Your task to perform on an android device: Set an alarm for 2pm Image 0: 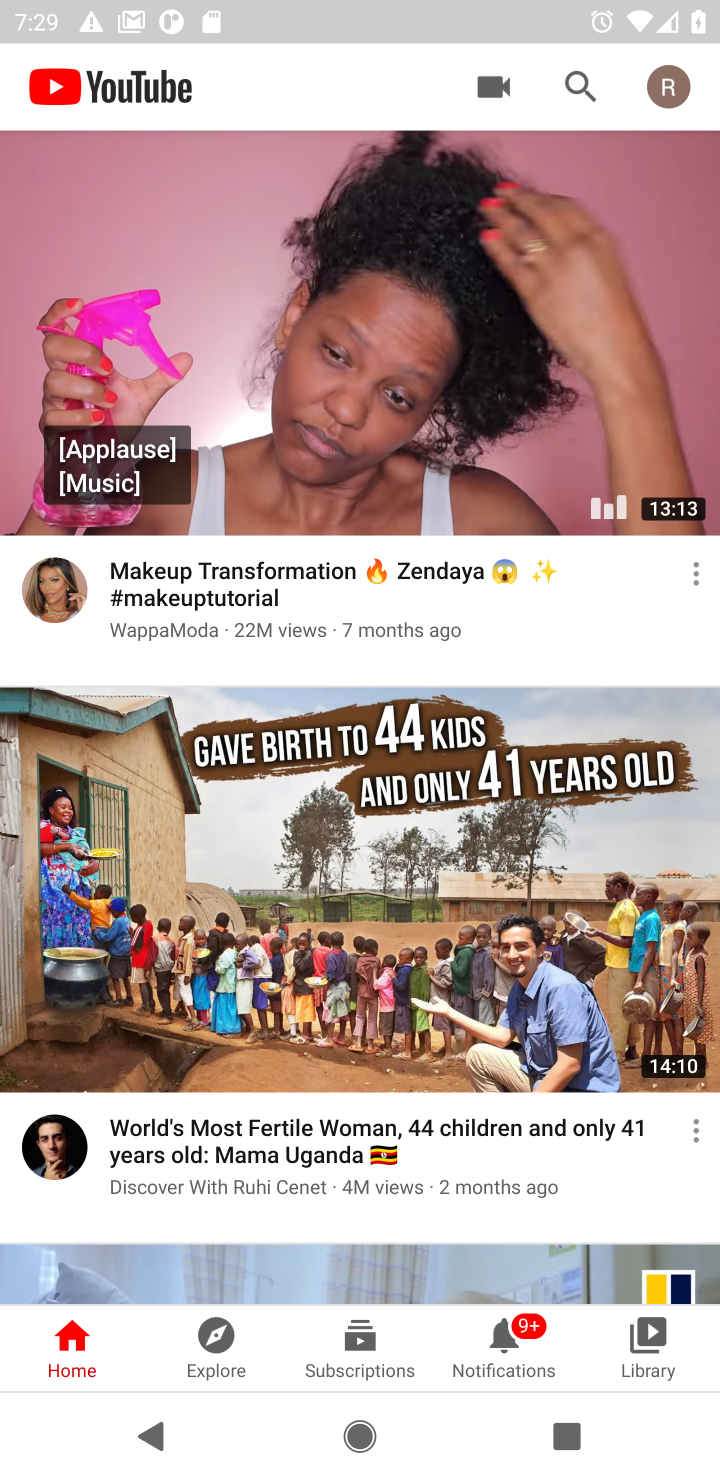
Step 0: press home button
Your task to perform on an android device: Set an alarm for 2pm Image 1: 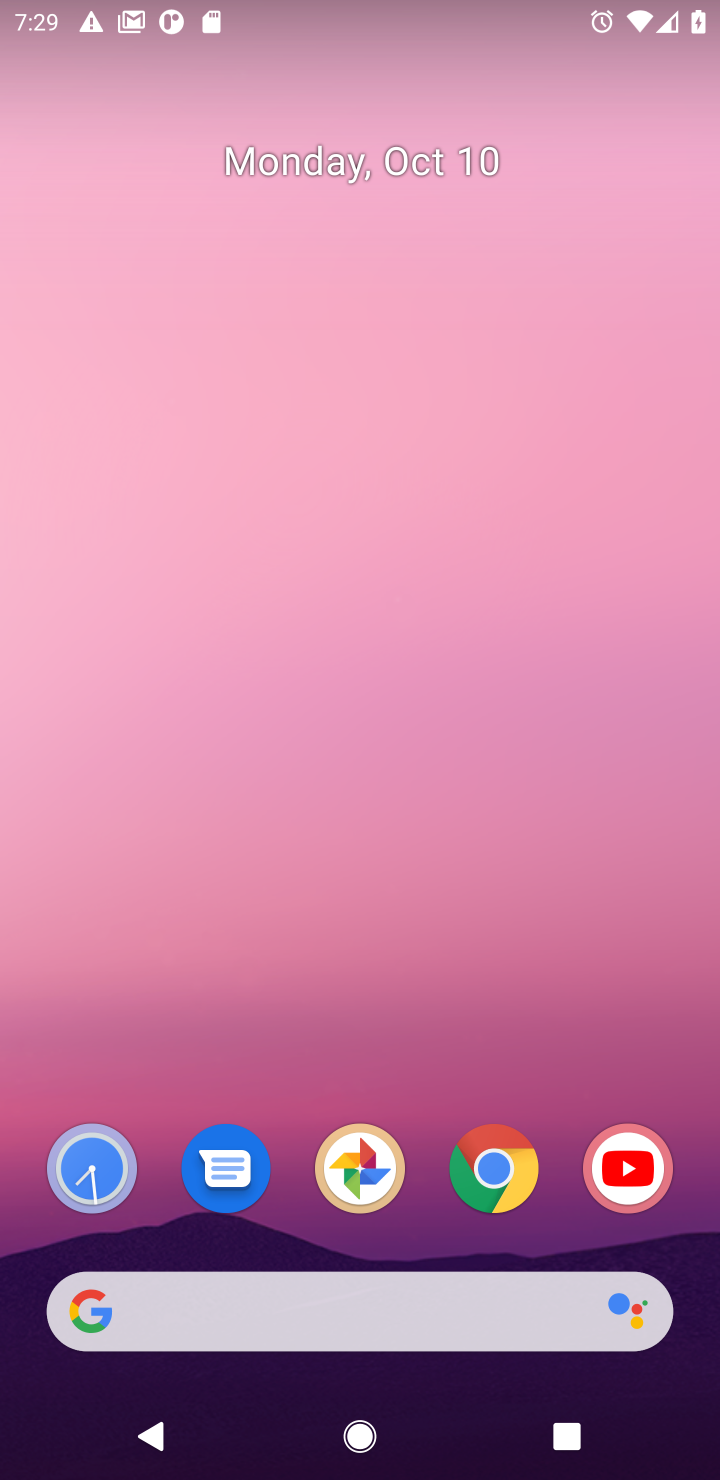
Step 1: click (99, 1150)
Your task to perform on an android device: Set an alarm for 2pm Image 2: 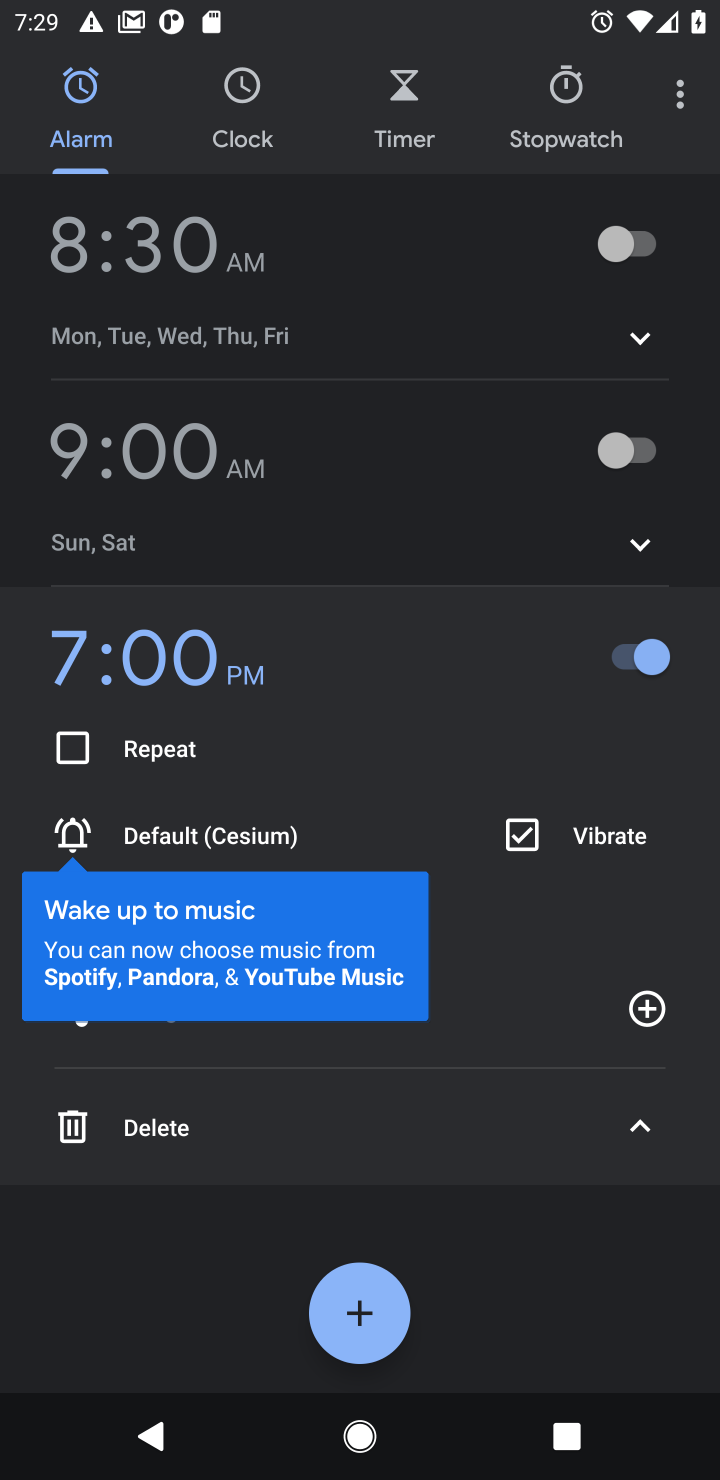
Step 2: click (374, 1322)
Your task to perform on an android device: Set an alarm for 2pm Image 3: 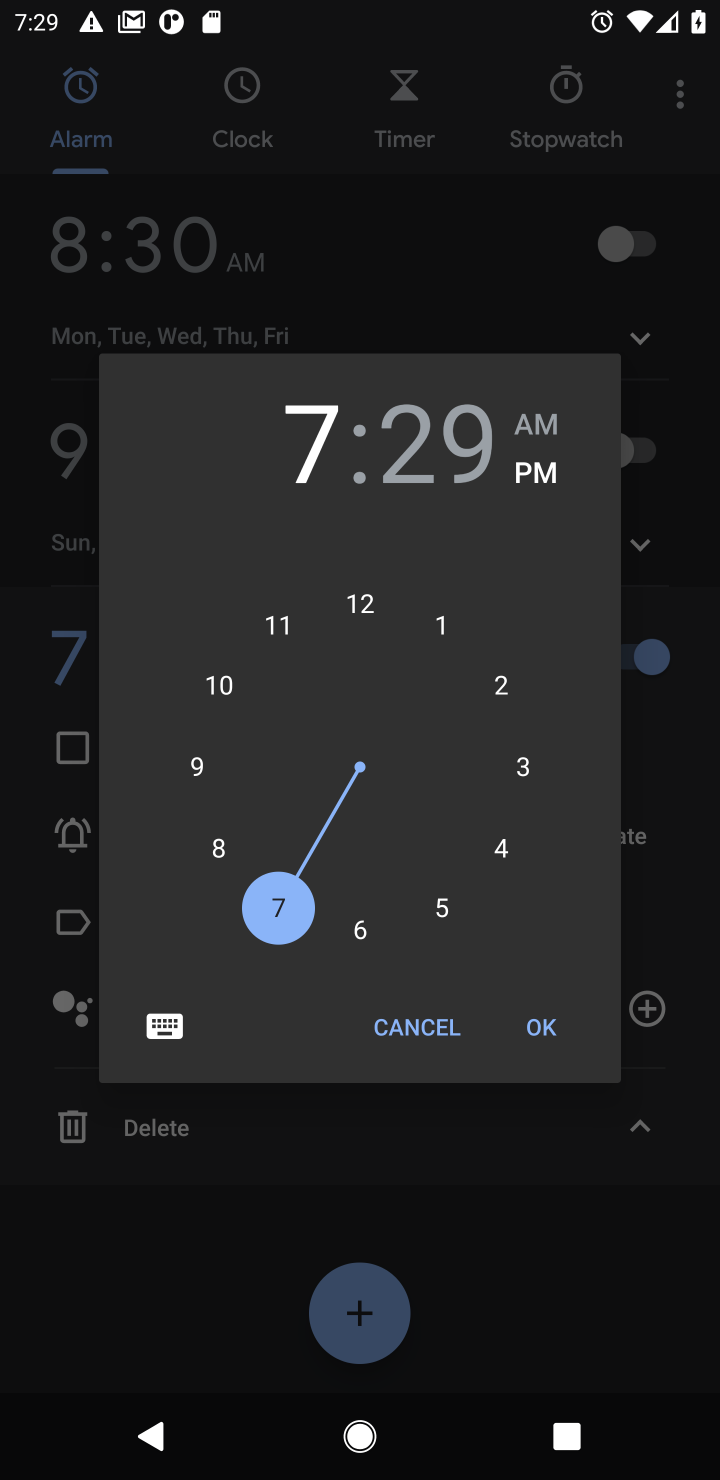
Step 3: click (504, 689)
Your task to perform on an android device: Set an alarm for 2pm Image 4: 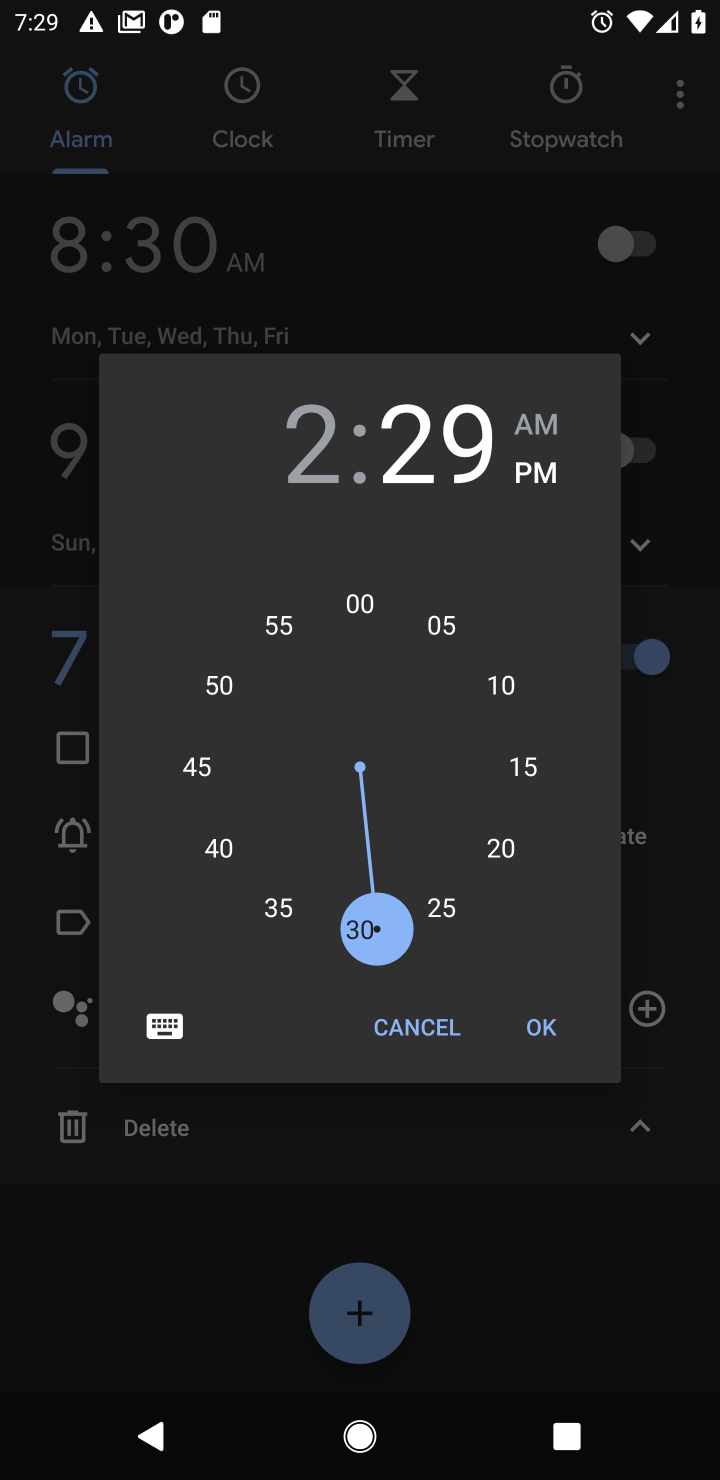
Step 4: click (376, 607)
Your task to perform on an android device: Set an alarm for 2pm Image 5: 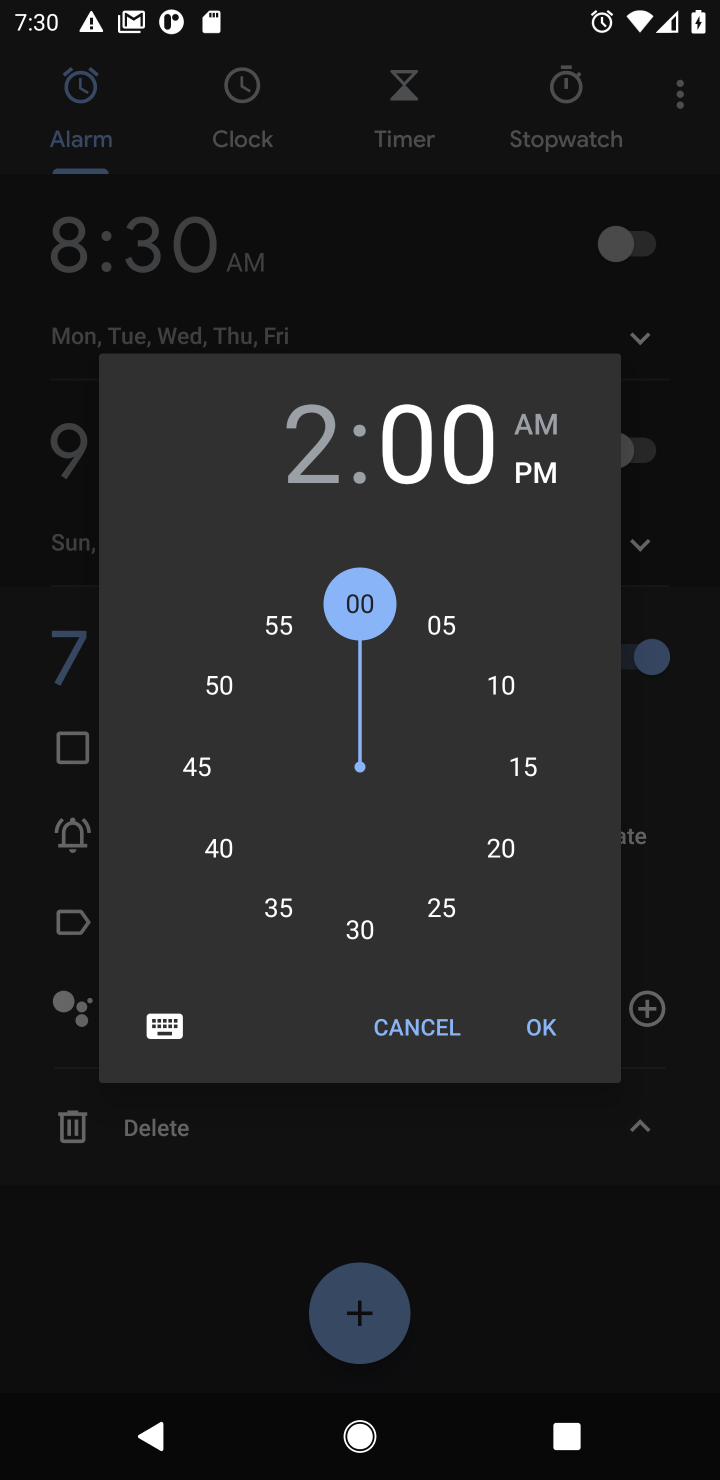
Step 5: click (550, 475)
Your task to perform on an android device: Set an alarm for 2pm Image 6: 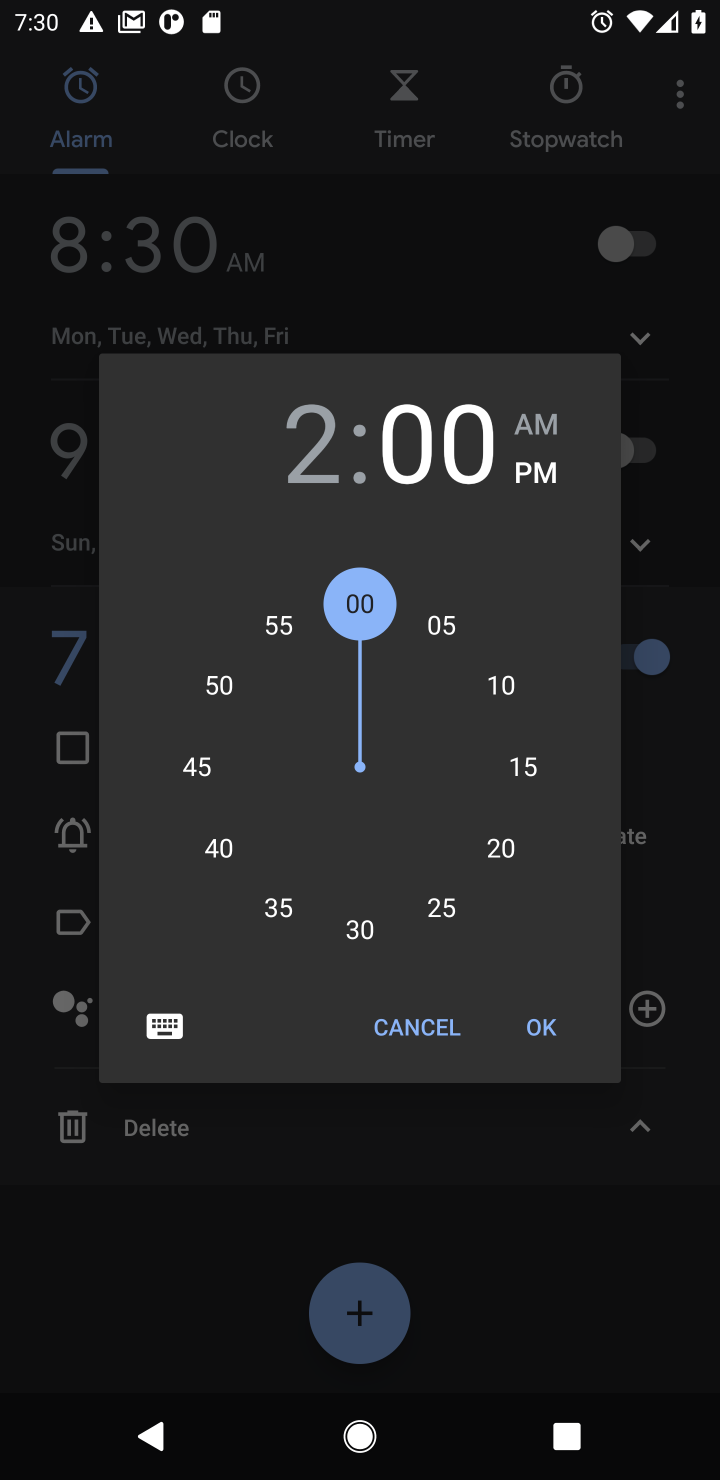
Step 6: click (552, 1028)
Your task to perform on an android device: Set an alarm for 2pm Image 7: 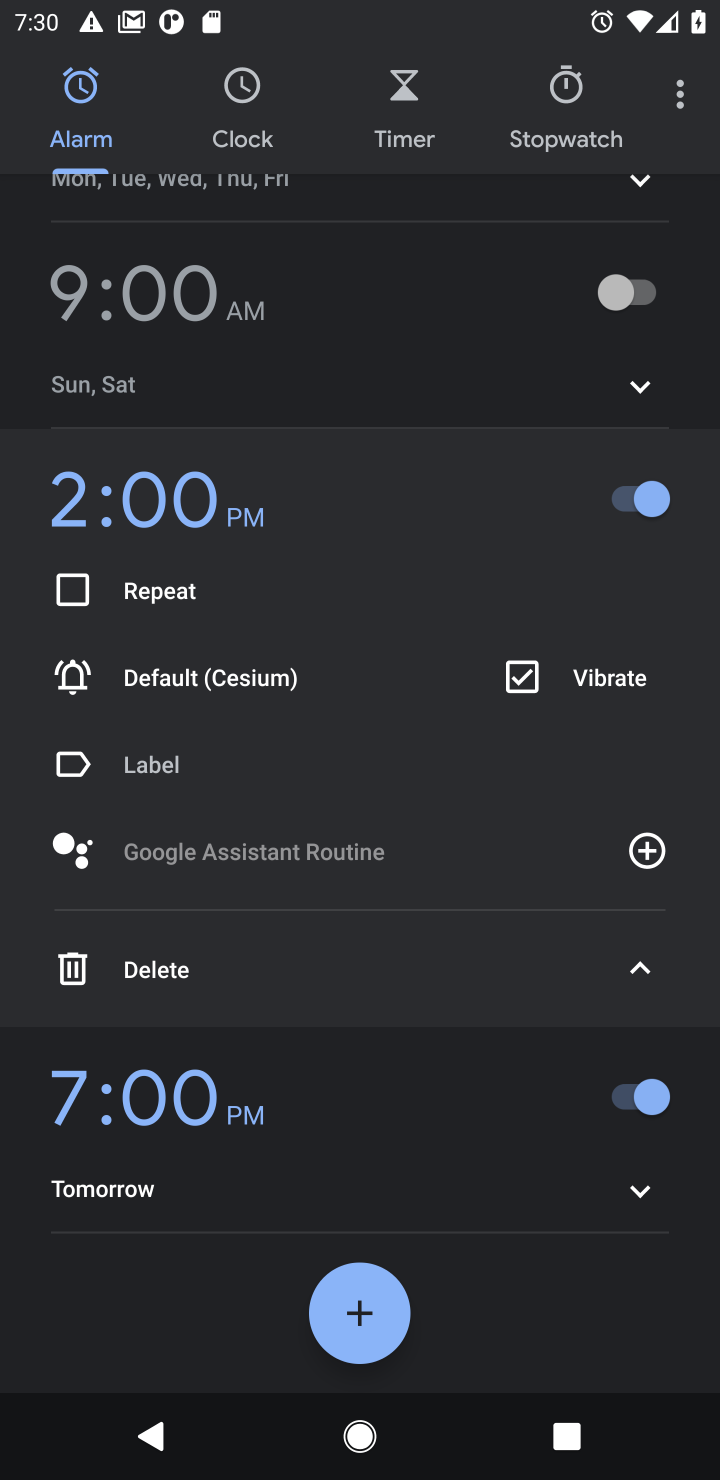
Step 7: task complete